Your task to perform on an android device: Show me productivity apps on the Play Store Image 0: 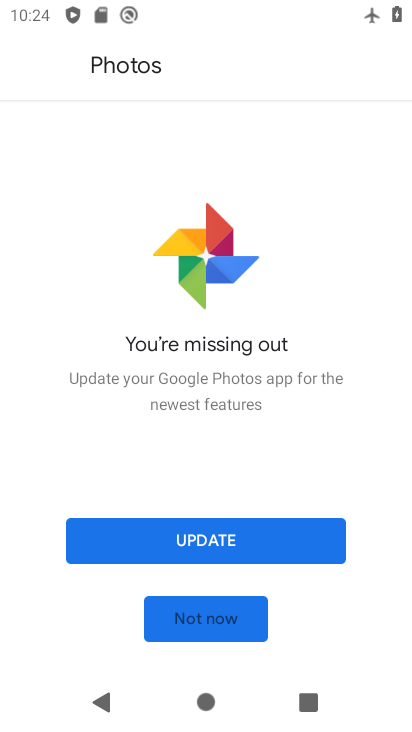
Step 0: press back button
Your task to perform on an android device: Show me productivity apps on the Play Store Image 1: 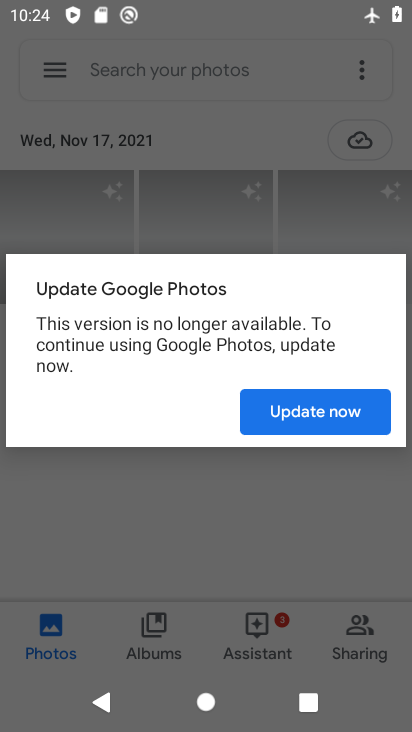
Step 1: press home button
Your task to perform on an android device: Show me productivity apps on the Play Store Image 2: 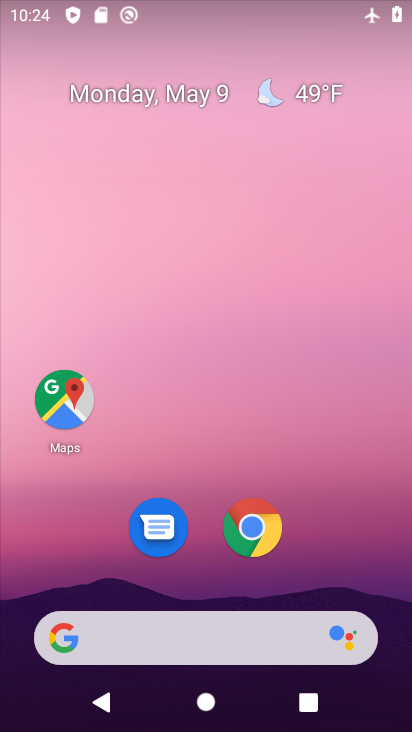
Step 2: drag from (203, 587) to (210, 33)
Your task to perform on an android device: Show me productivity apps on the Play Store Image 3: 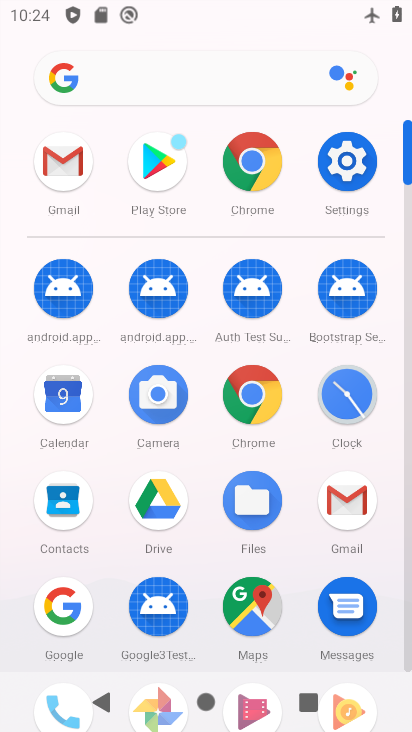
Step 3: drag from (200, 478) to (203, 228)
Your task to perform on an android device: Show me productivity apps on the Play Store Image 4: 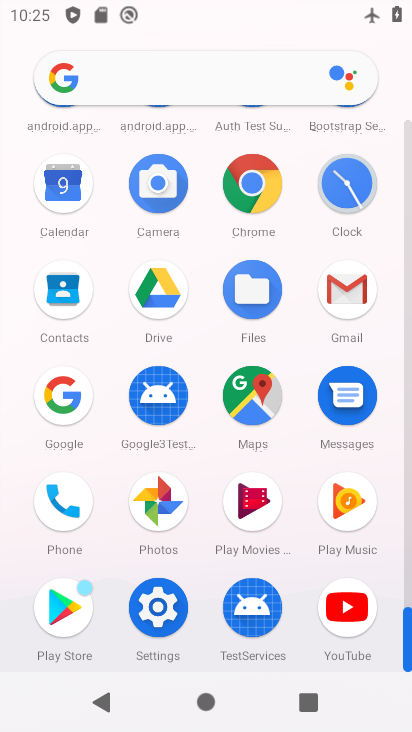
Step 4: click (59, 611)
Your task to perform on an android device: Show me productivity apps on the Play Store Image 5: 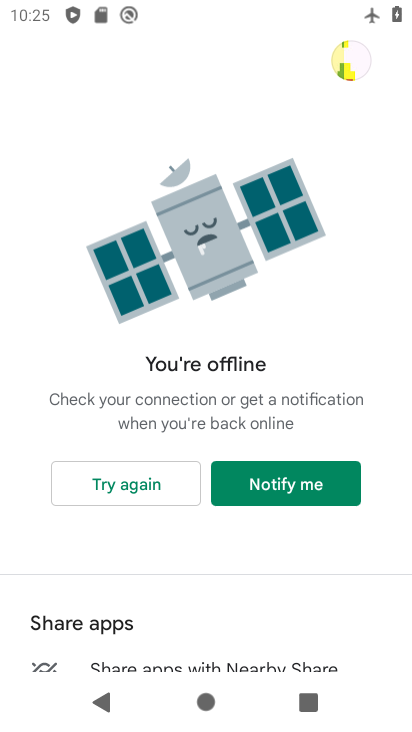
Step 5: press back button
Your task to perform on an android device: Show me productivity apps on the Play Store Image 6: 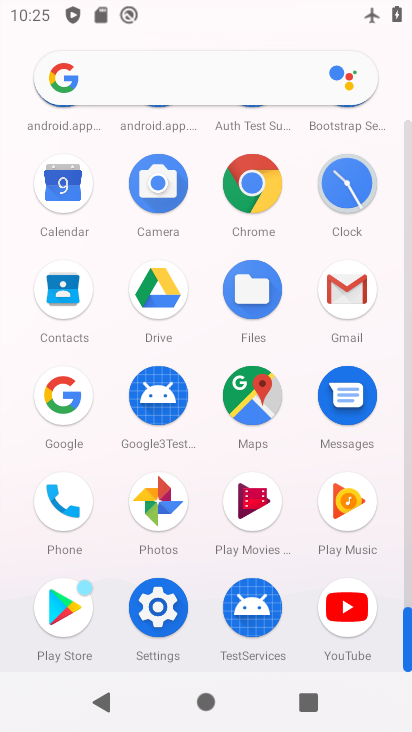
Step 6: press back button
Your task to perform on an android device: Show me productivity apps on the Play Store Image 7: 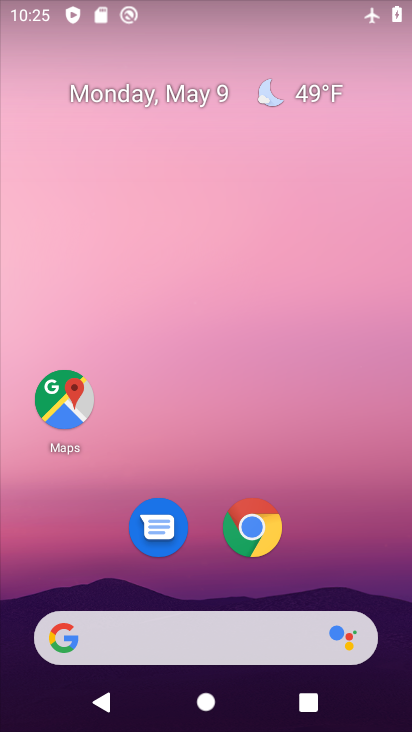
Step 7: drag from (336, 517) to (275, 112)
Your task to perform on an android device: Show me productivity apps on the Play Store Image 8: 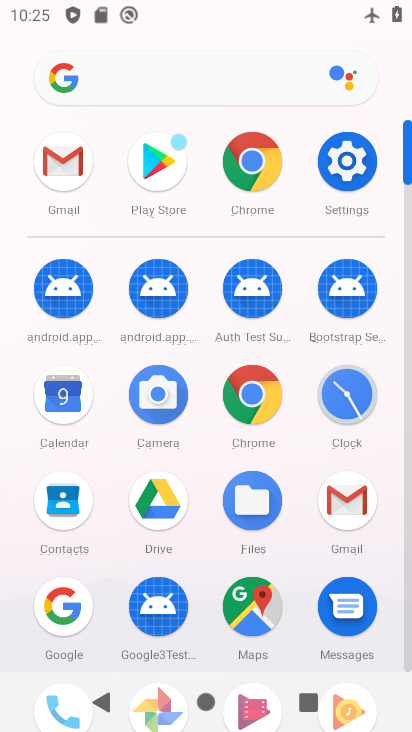
Step 8: click (347, 162)
Your task to perform on an android device: Show me productivity apps on the Play Store Image 9: 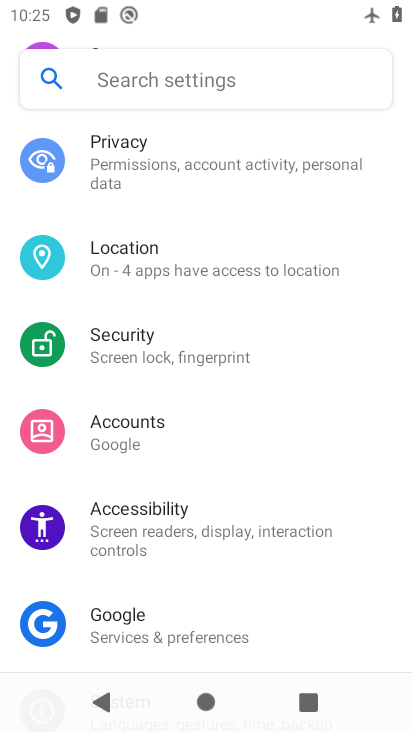
Step 9: drag from (212, 214) to (263, 428)
Your task to perform on an android device: Show me productivity apps on the Play Store Image 10: 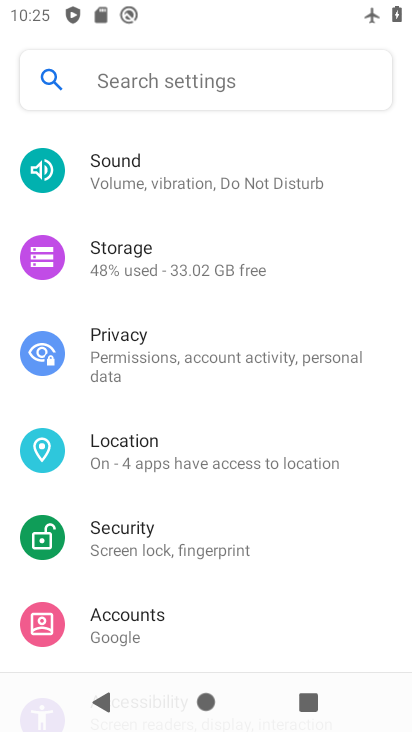
Step 10: drag from (220, 144) to (235, 340)
Your task to perform on an android device: Show me productivity apps on the Play Store Image 11: 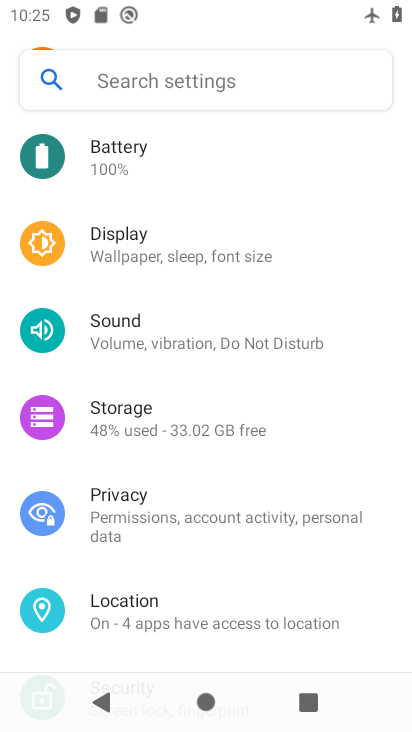
Step 11: drag from (231, 190) to (248, 425)
Your task to perform on an android device: Show me productivity apps on the Play Store Image 12: 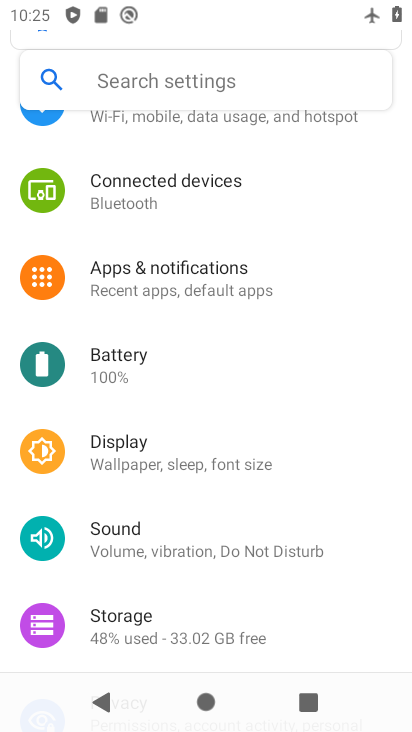
Step 12: drag from (215, 152) to (264, 431)
Your task to perform on an android device: Show me productivity apps on the Play Store Image 13: 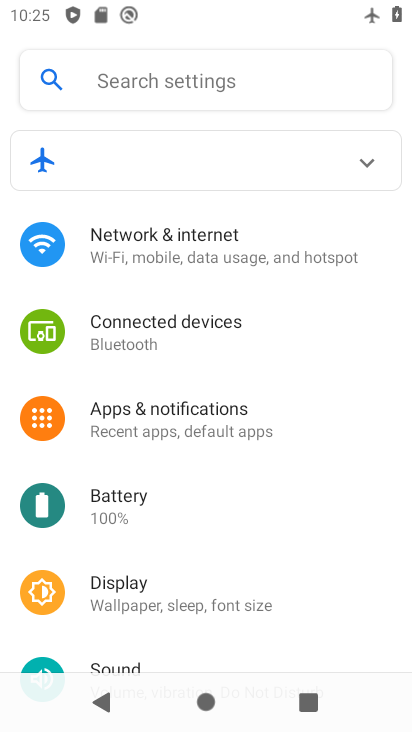
Step 13: click (158, 229)
Your task to perform on an android device: Show me productivity apps on the Play Store Image 14: 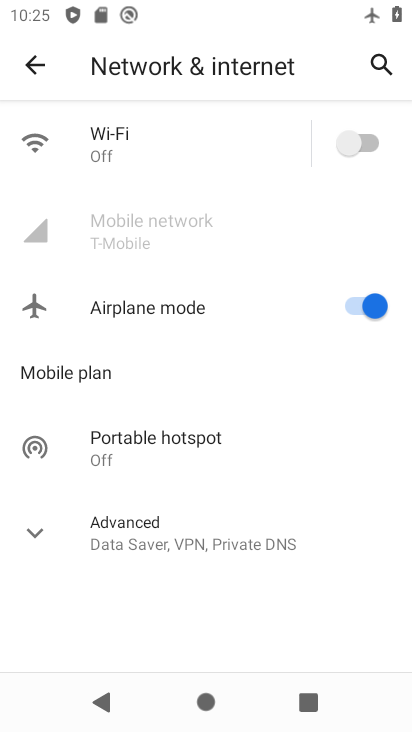
Step 14: click (377, 303)
Your task to perform on an android device: Show me productivity apps on the Play Store Image 15: 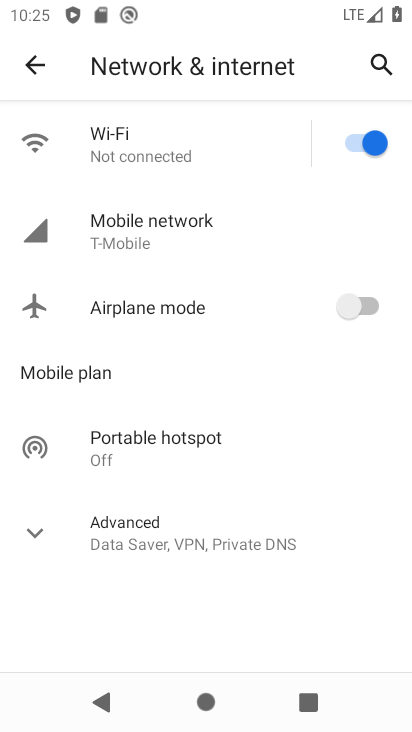
Step 15: press back button
Your task to perform on an android device: Show me productivity apps on the Play Store Image 16: 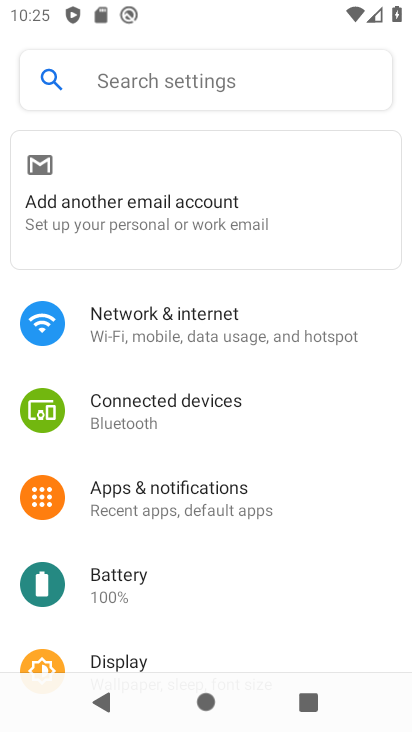
Step 16: press back button
Your task to perform on an android device: Show me productivity apps on the Play Store Image 17: 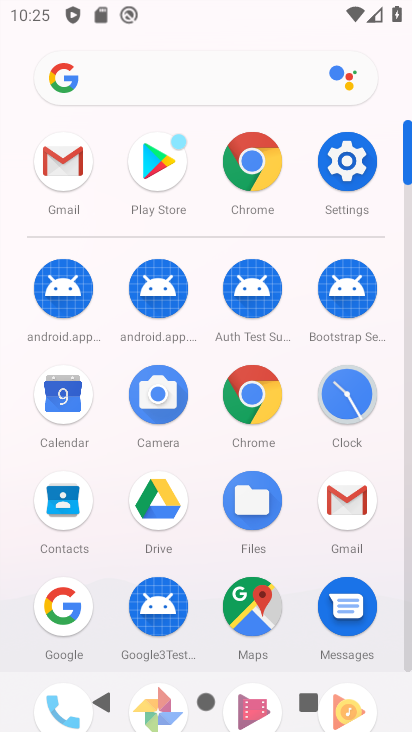
Step 17: click (161, 160)
Your task to perform on an android device: Show me productivity apps on the Play Store Image 18: 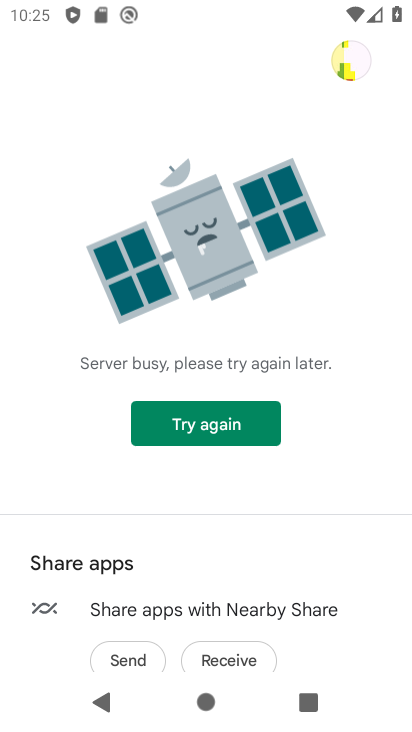
Step 18: click (223, 413)
Your task to perform on an android device: Show me productivity apps on the Play Store Image 19: 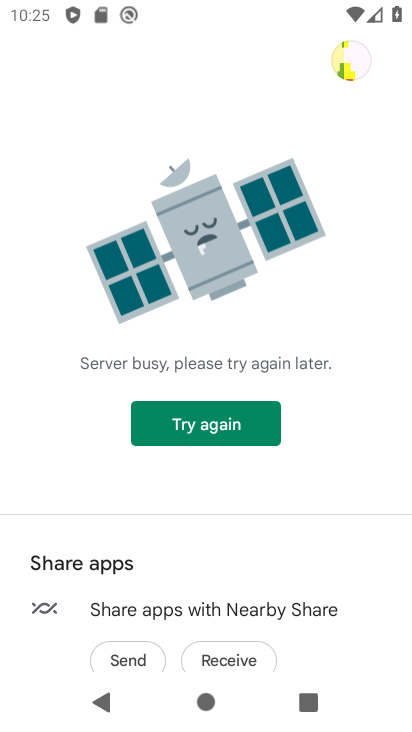
Step 19: click (200, 428)
Your task to perform on an android device: Show me productivity apps on the Play Store Image 20: 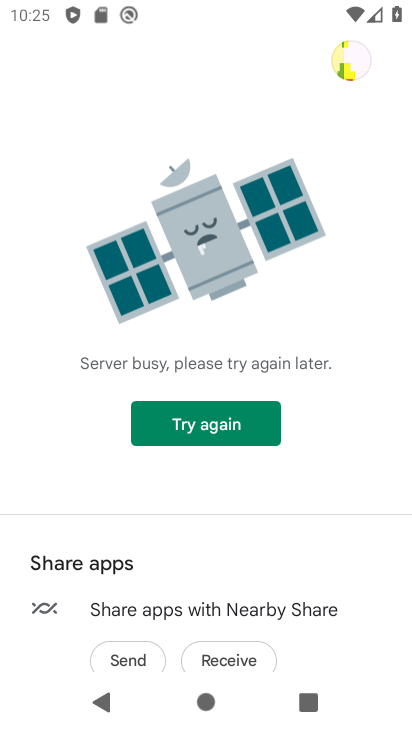
Step 20: click (200, 428)
Your task to perform on an android device: Show me productivity apps on the Play Store Image 21: 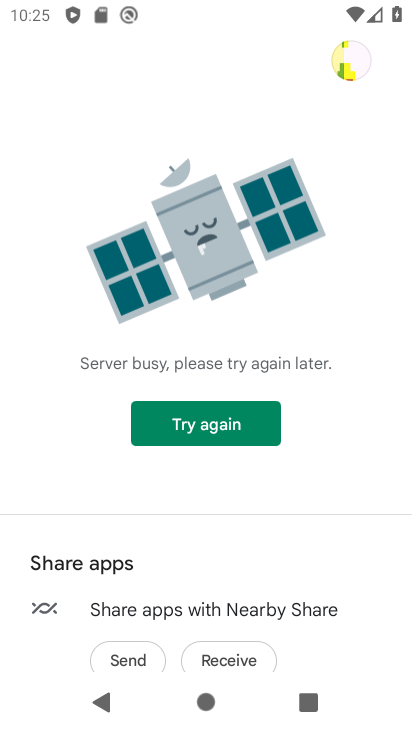
Step 21: click (200, 428)
Your task to perform on an android device: Show me productivity apps on the Play Store Image 22: 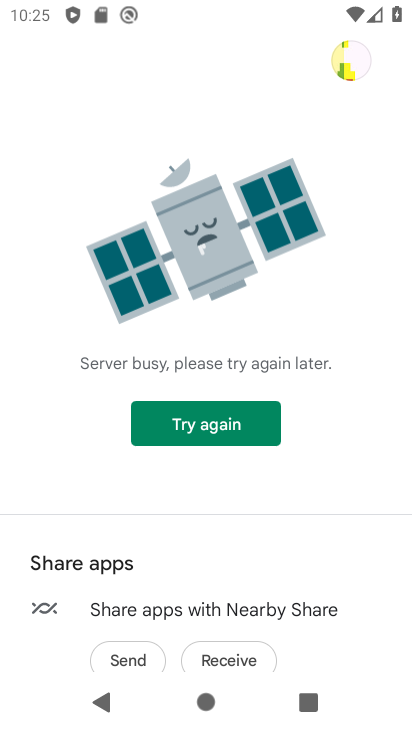
Step 22: task complete